Your task to perform on an android device: change the clock style Image 0: 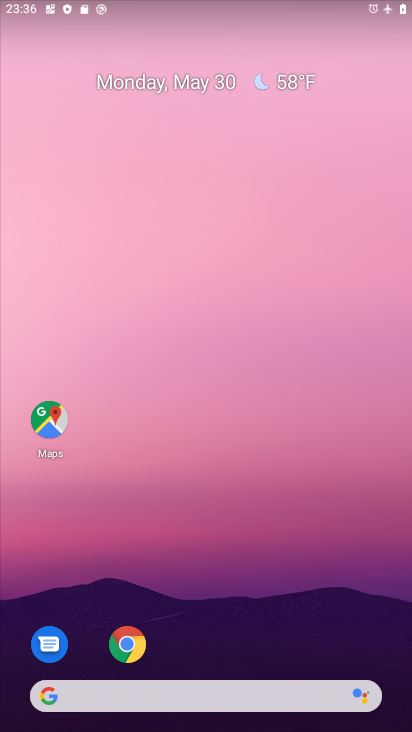
Step 0: drag from (317, 599) to (356, 201)
Your task to perform on an android device: change the clock style Image 1: 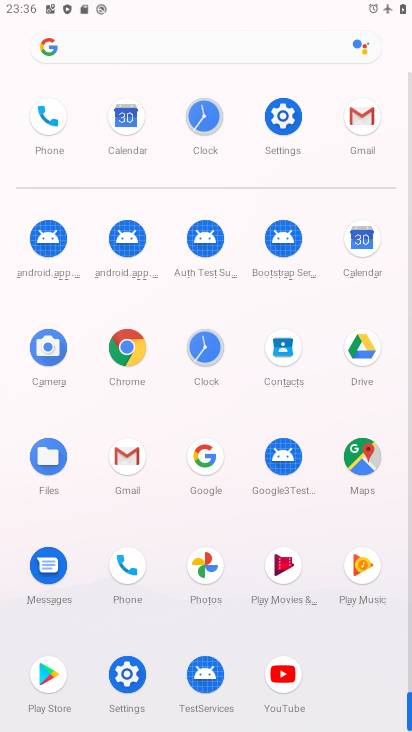
Step 1: click (200, 343)
Your task to perform on an android device: change the clock style Image 2: 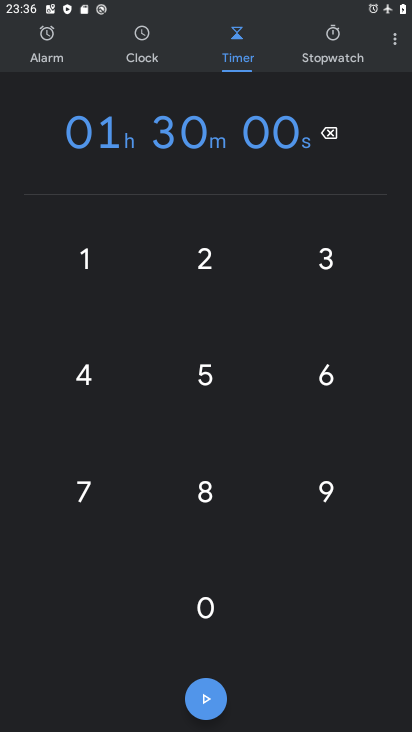
Step 2: click (393, 44)
Your task to perform on an android device: change the clock style Image 3: 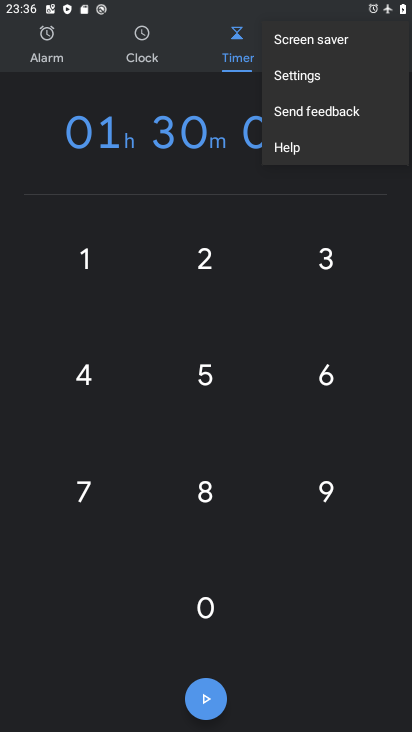
Step 3: click (292, 80)
Your task to perform on an android device: change the clock style Image 4: 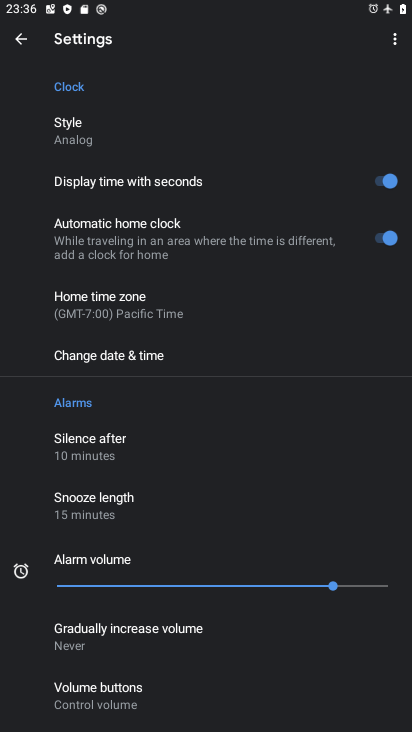
Step 4: click (65, 129)
Your task to perform on an android device: change the clock style Image 5: 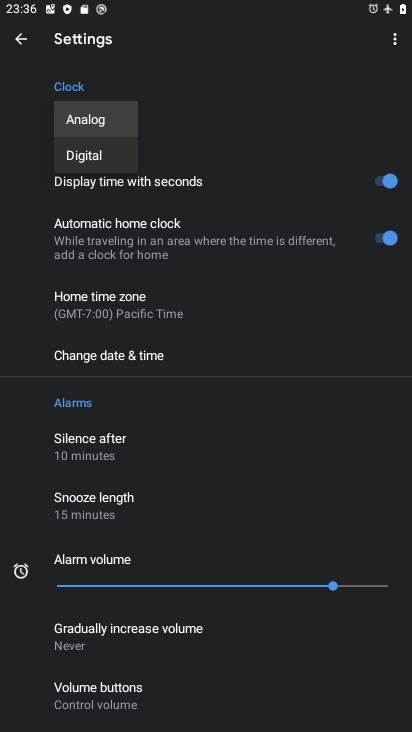
Step 5: click (79, 150)
Your task to perform on an android device: change the clock style Image 6: 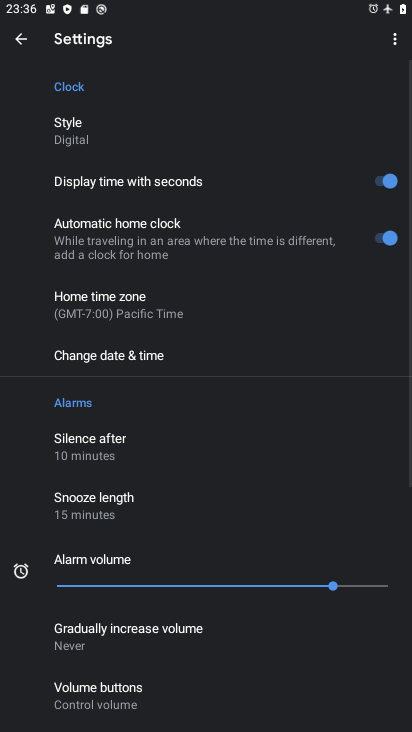
Step 6: task complete